Your task to perform on an android device: What's the weather going to be this weekend? Image 0: 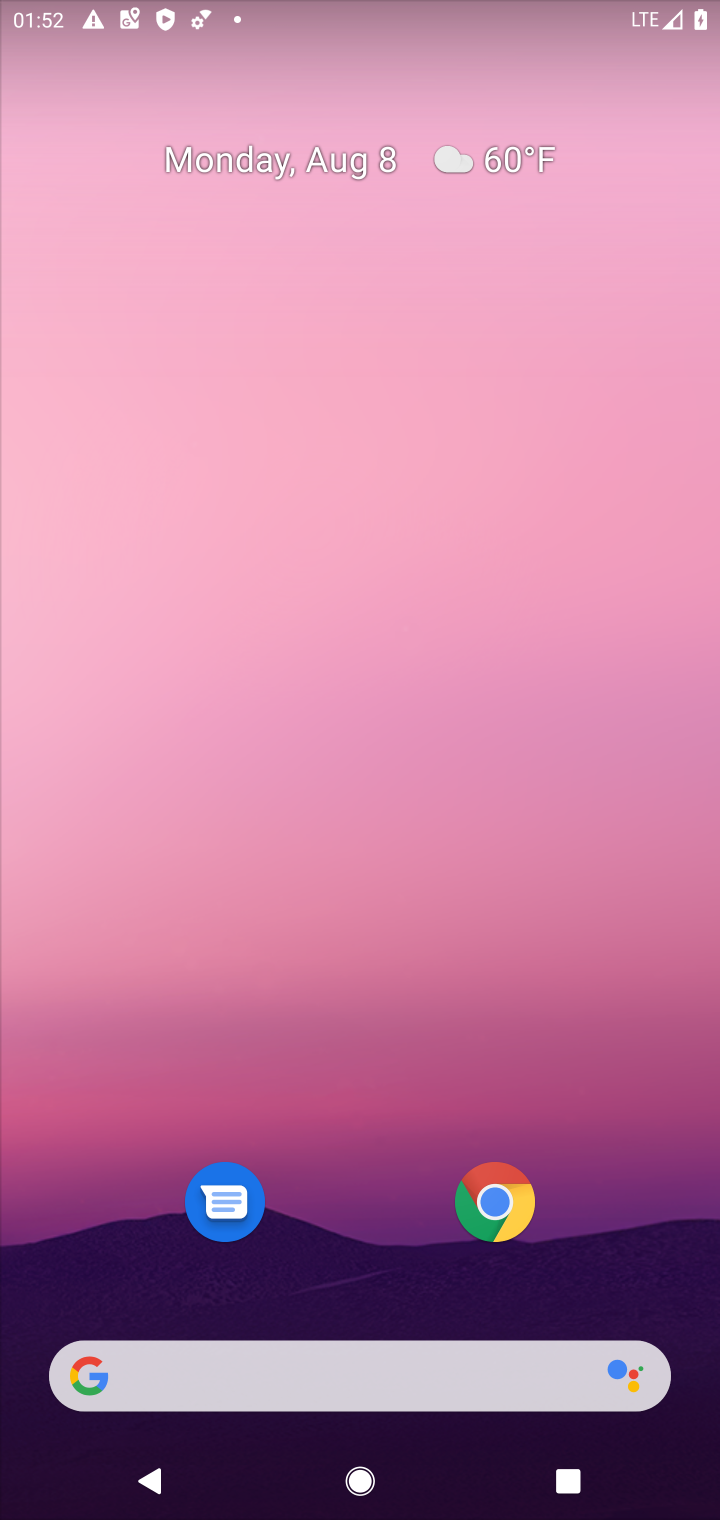
Step 0: drag from (331, 1143) to (331, 243)
Your task to perform on an android device: What's the weather going to be this weekend? Image 1: 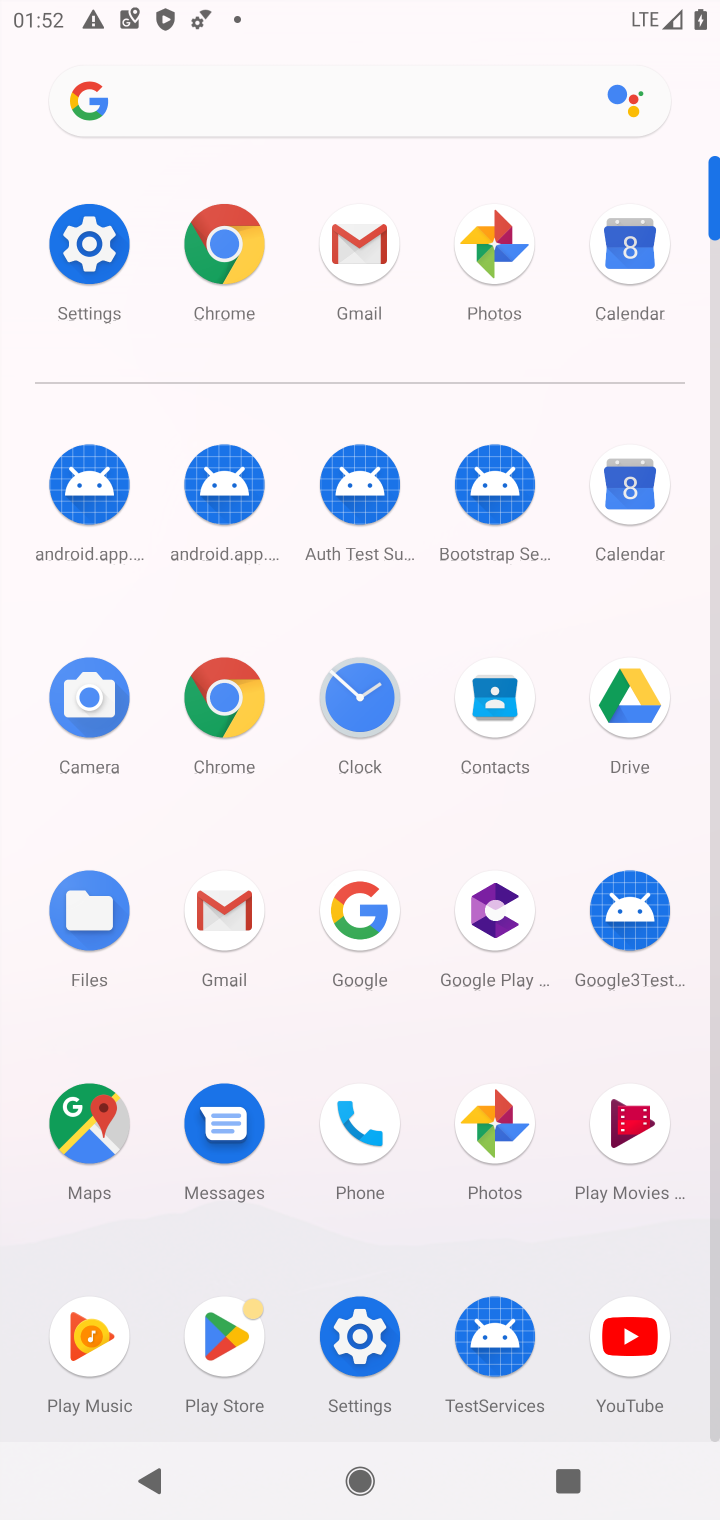
Step 1: click (343, 928)
Your task to perform on an android device: What's the weather going to be this weekend? Image 2: 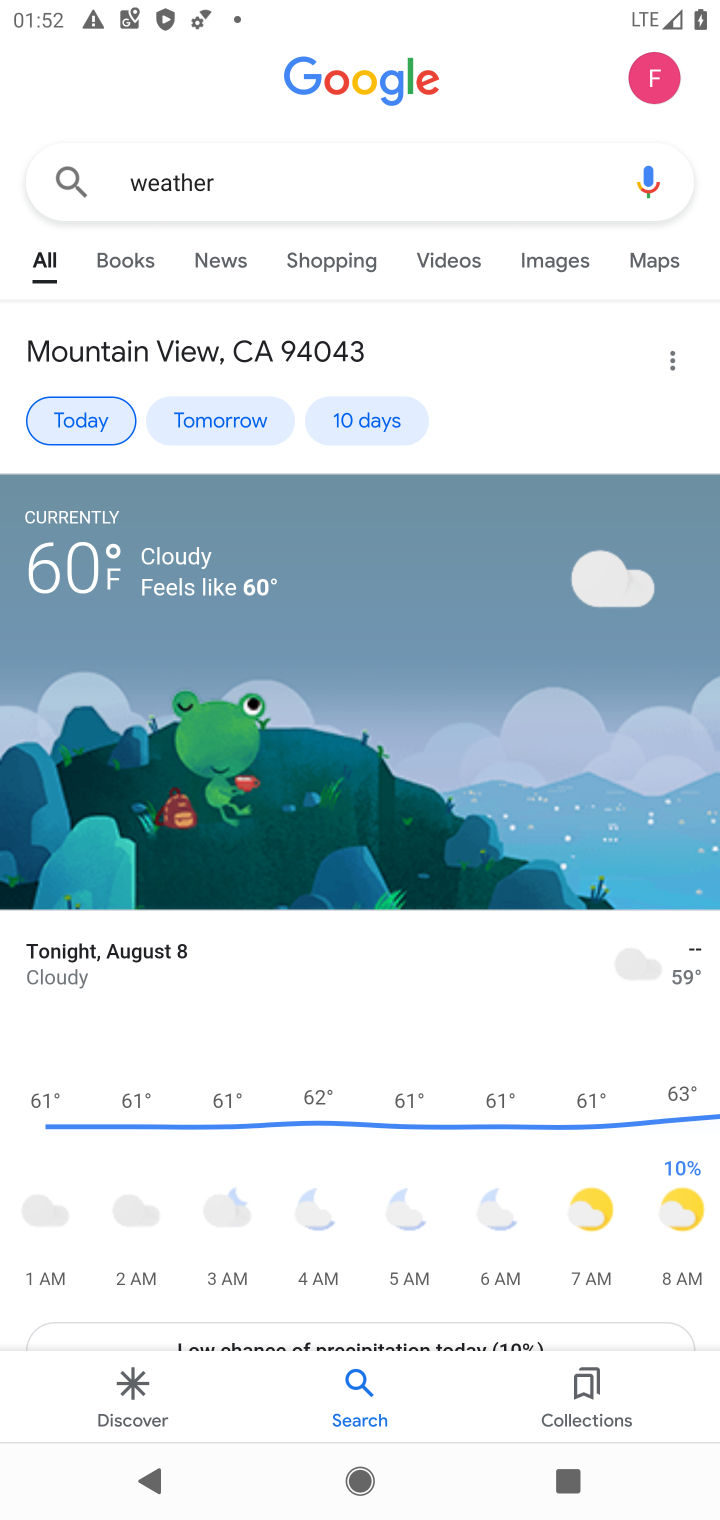
Step 2: click (335, 424)
Your task to perform on an android device: What's the weather going to be this weekend? Image 3: 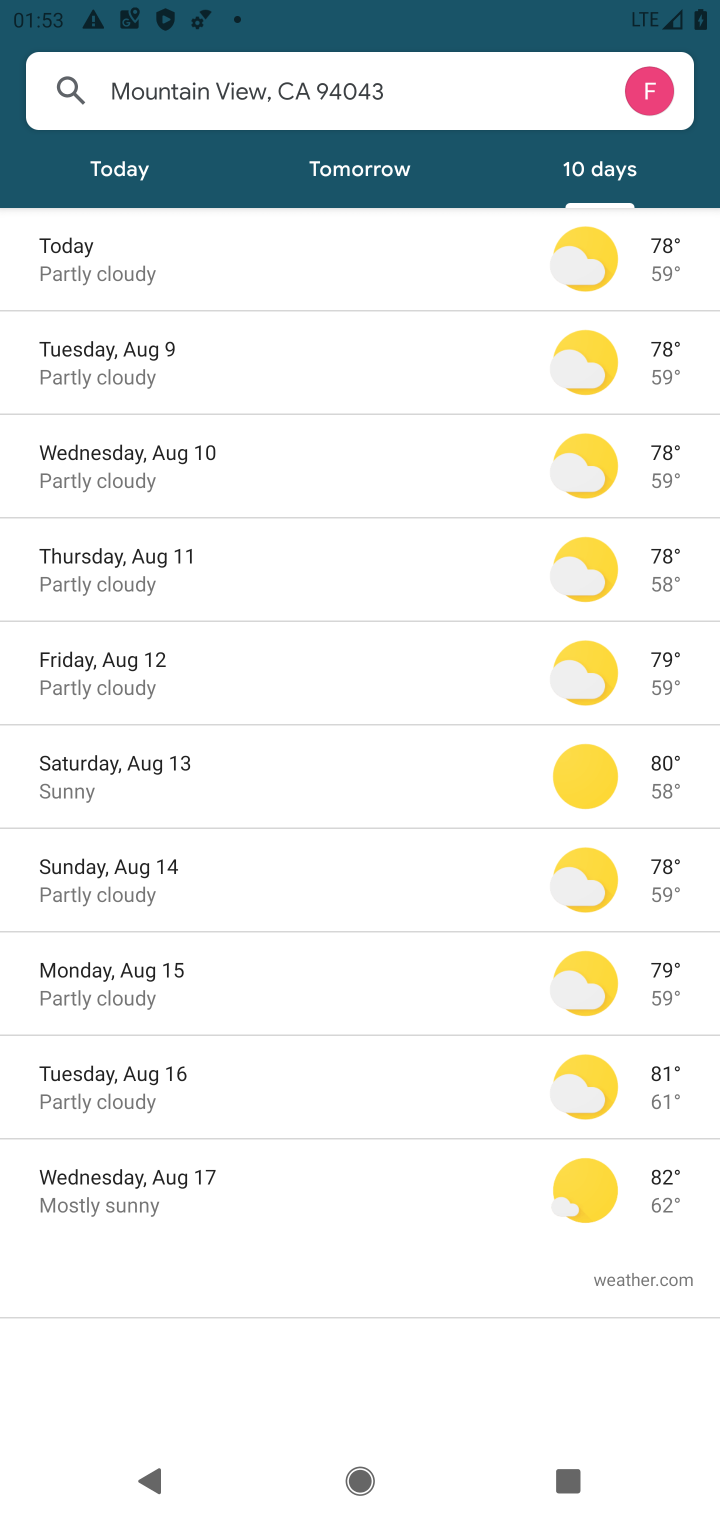
Step 3: task complete